Your task to perform on an android device: Search for Italian restaurants on Maps Image 0: 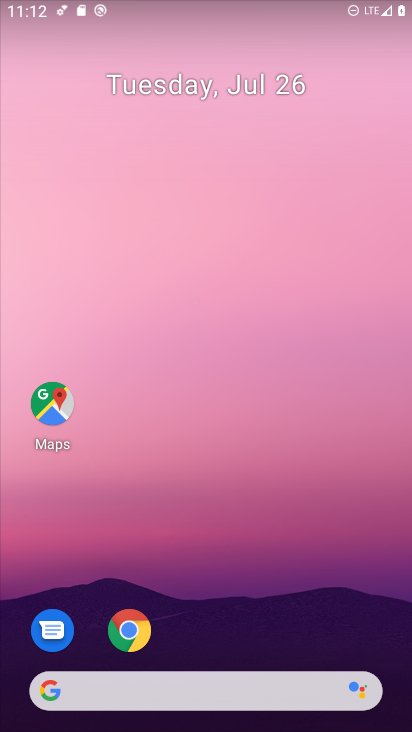
Step 0: click (55, 404)
Your task to perform on an android device: Search for Italian restaurants on Maps Image 1: 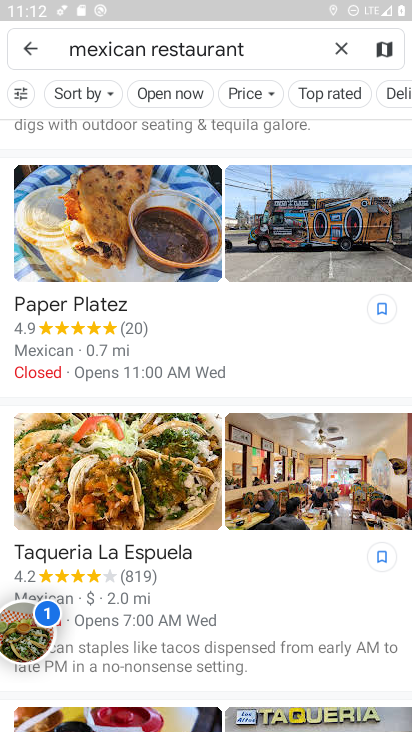
Step 1: click (341, 50)
Your task to perform on an android device: Search for Italian restaurants on Maps Image 2: 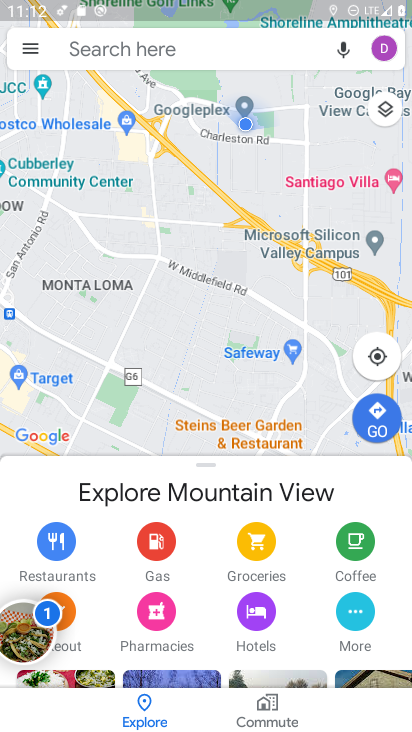
Step 2: click (110, 49)
Your task to perform on an android device: Search for Italian restaurants on Maps Image 3: 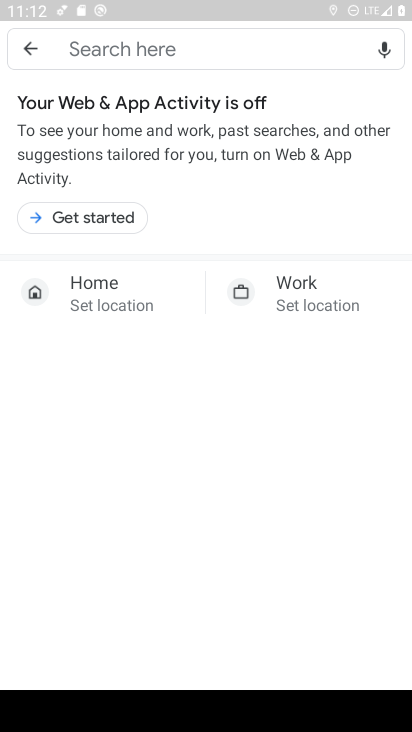
Step 3: type "italian restaurants"
Your task to perform on an android device: Search for Italian restaurants on Maps Image 4: 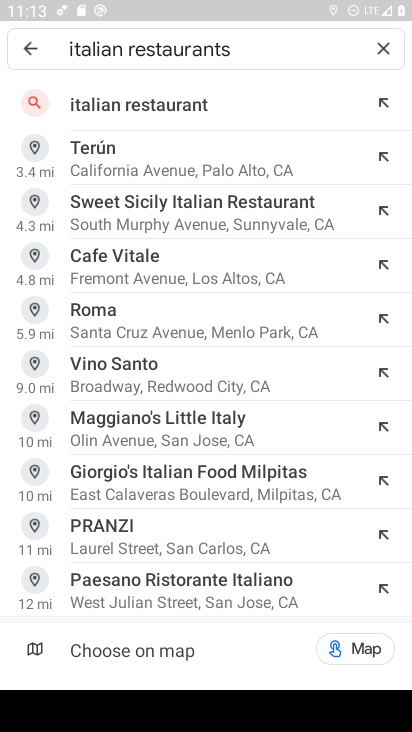
Step 4: click (145, 108)
Your task to perform on an android device: Search for Italian restaurants on Maps Image 5: 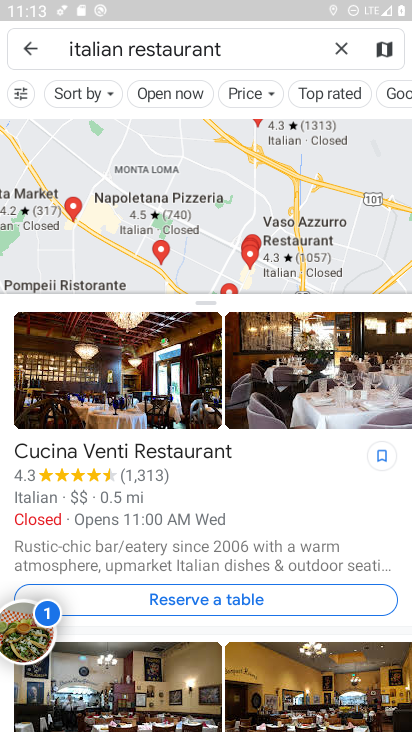
Step 5: task complete